Your task to perform on an android device: Go to ESPN.com Image 0: 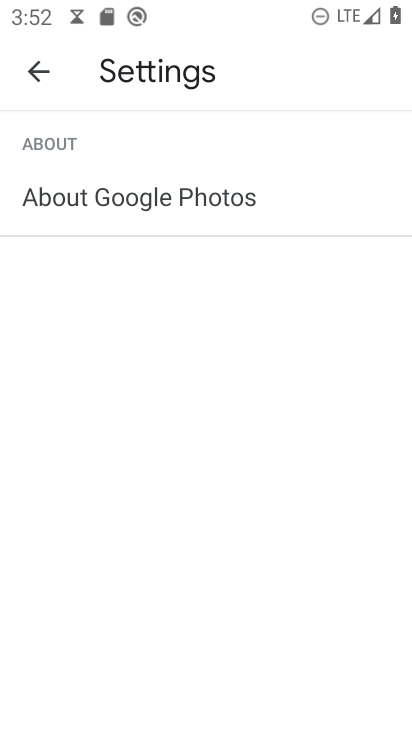
Step 0: press home button
Your task to perform on an android device: Go to ESPN.com Image 1: 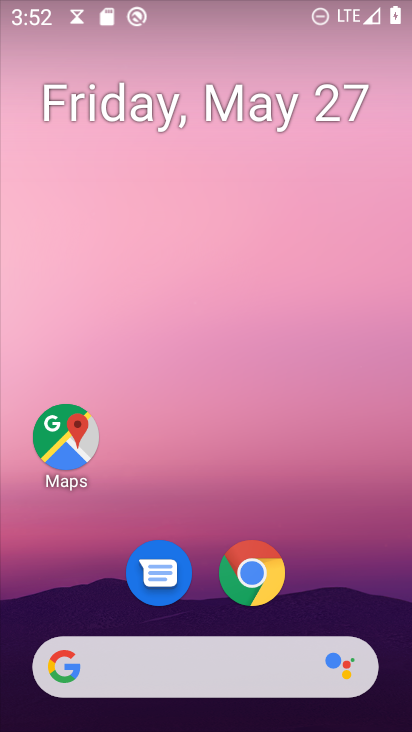
Step 1: click (262, 560)
Your task to perform on an android device: Go to ESPN.com Image 2: 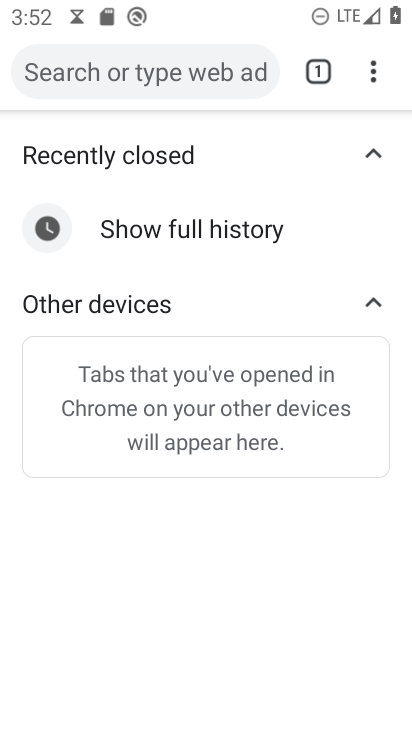
Step 2: click (158, 73)
Your task to perform on an android device: Go to ESPN.com Image 3: 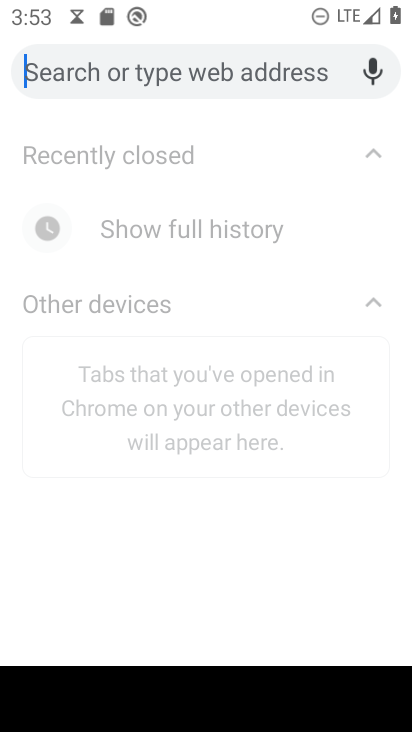
Step 3: type "ESPN.com"
Your task to perform on an android device: Go to ESPN.com Image 4: 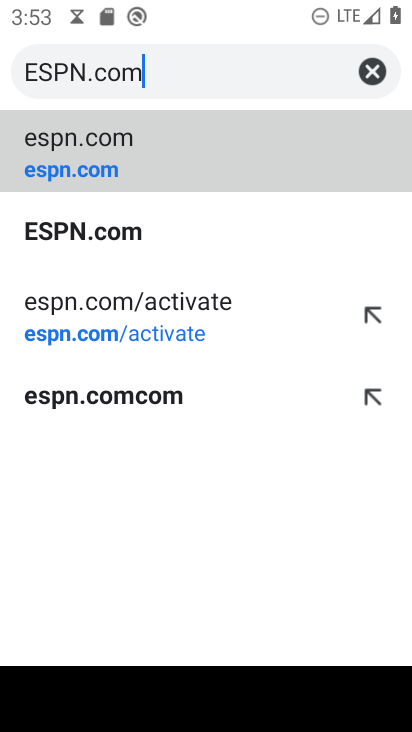
Step 4: click (59, 154)
Your task to perform on an android device: Go to ESPN.com Image 5: 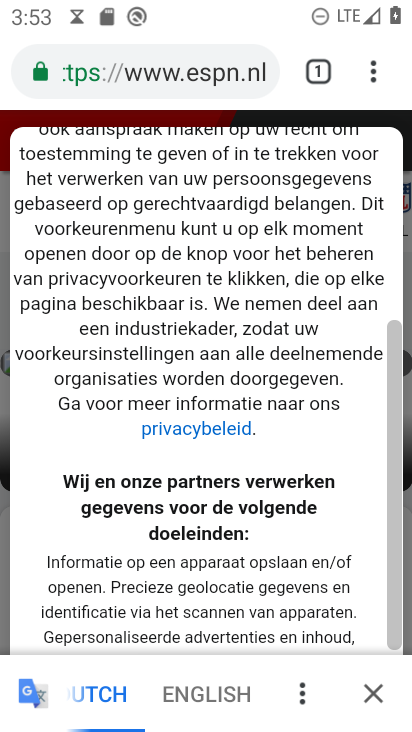
Step 5: task complete